Your task to perform on an android device: change your default location settings in chrome Image 0: 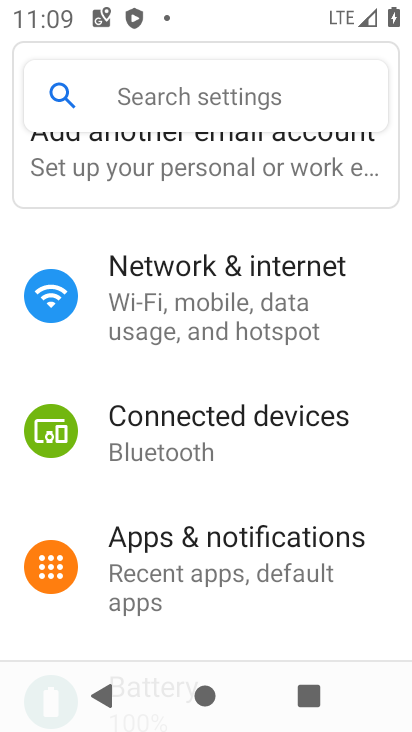
Step 0: press home button
Your task to perform on an android device: change your default location settings in chrome Image 1: 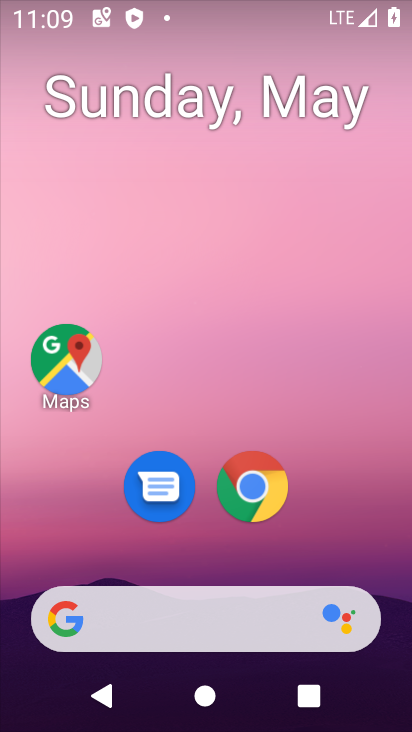
Step 1: drag from (340, 534) to (240, 100)
Your task to perform on an android device: change your default location settings in chrome Image 2: 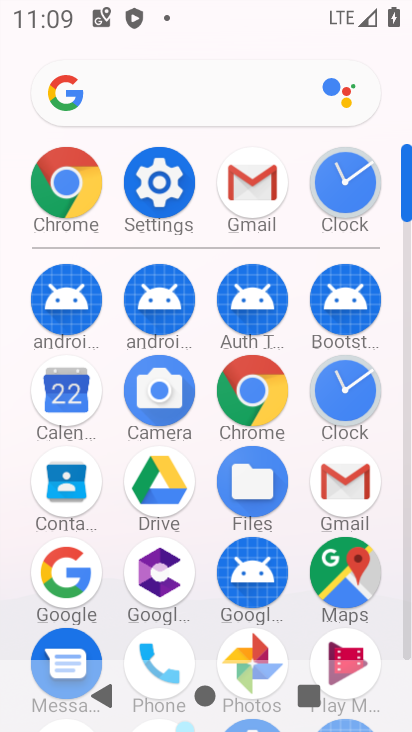
Step 2: click (247, 402)
Your task to perform on an android device: change your default location settings in chrome Image 3: 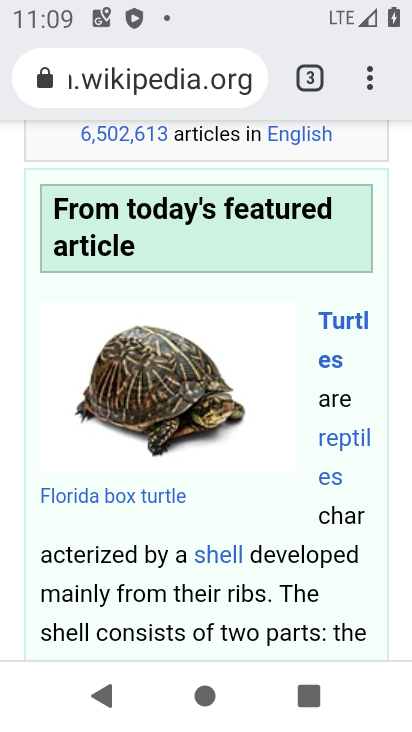
Step 3: click (367, 85)
Your task to perform on an android device: change your default location settings in chrome Image 4: 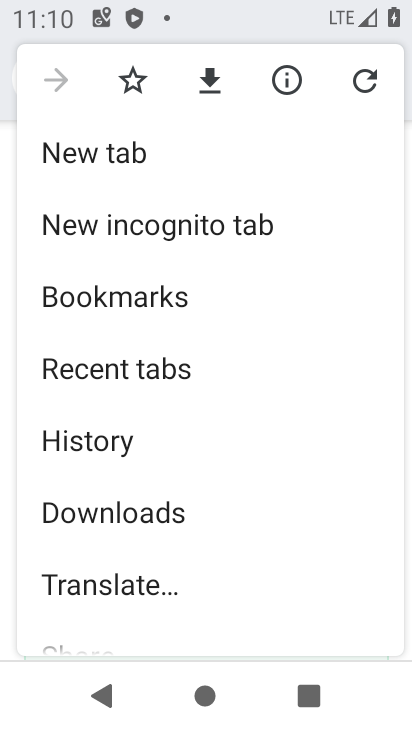
Step 4: drag from (127, 622) to (68, 430)
Your task to perform on an android device: change your default location settings in chrome Image 5: 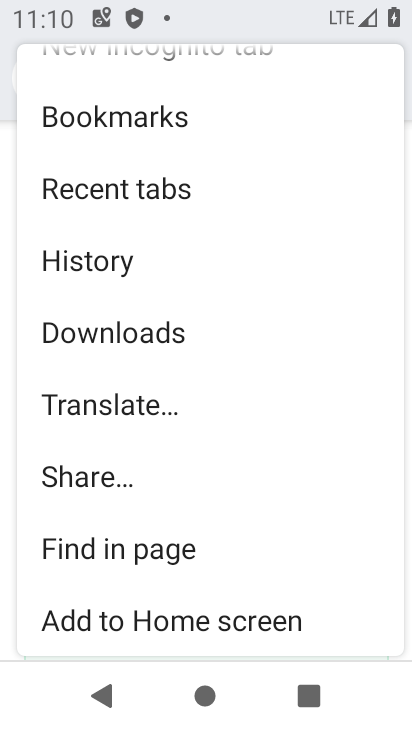
Step 5: drag from (217, 550) to (184, 349)
Your task to perform on an android device: change your default location settings in chrome Image 6: 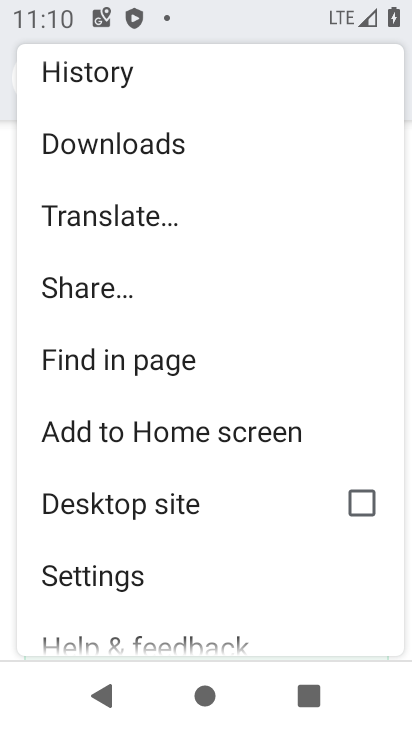
Step 6: click (82, 588)
Your task to perform on an android device: change your default location settings in chrome Image 7: 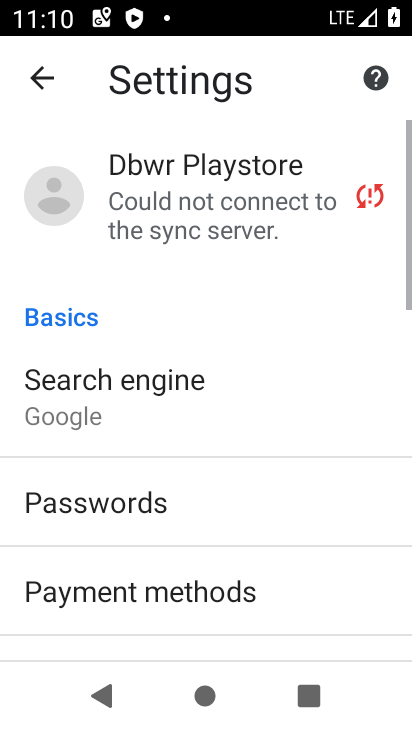
Step 7: drag from (127, 591) to (131, 308)
Your task to perform on an android device: change your default location settings in chrome Image 8: 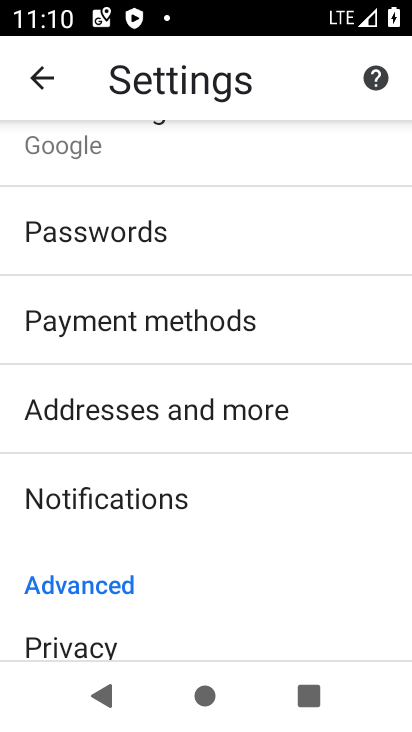
Step 8: drag from (194, 578) to (196, 236)
Your task to perform on an android device: change your default location settings in chrome Image 9: 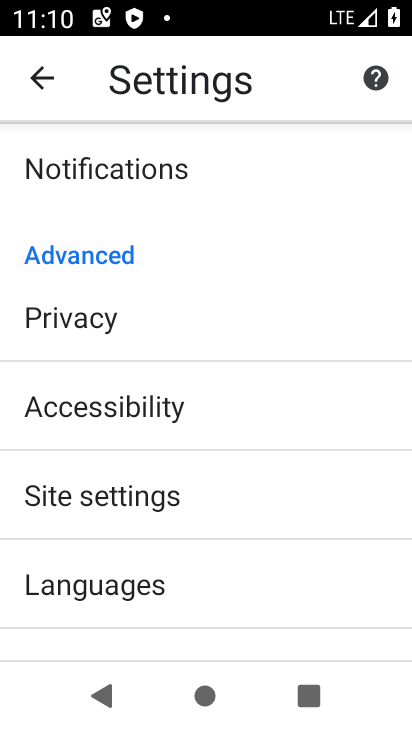
Step 9: drag from (157, 560) to (193, 343)
Your task to perform on an android device: change your default location settings in chrome Image 10: 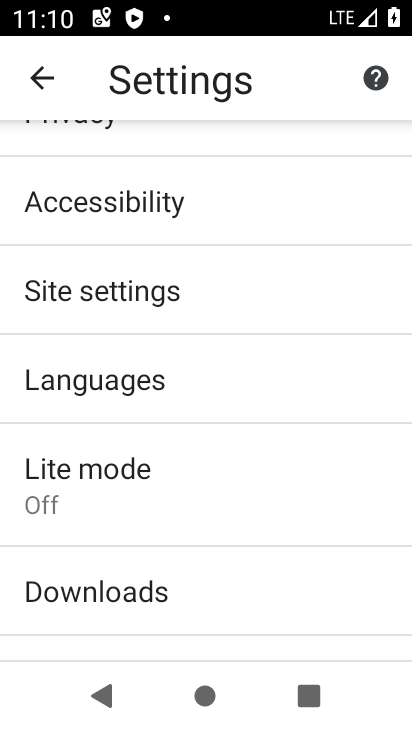
Step 10: click (110, 302)
Your task to perform on an android device: change your default location settings in chrome Image 11: 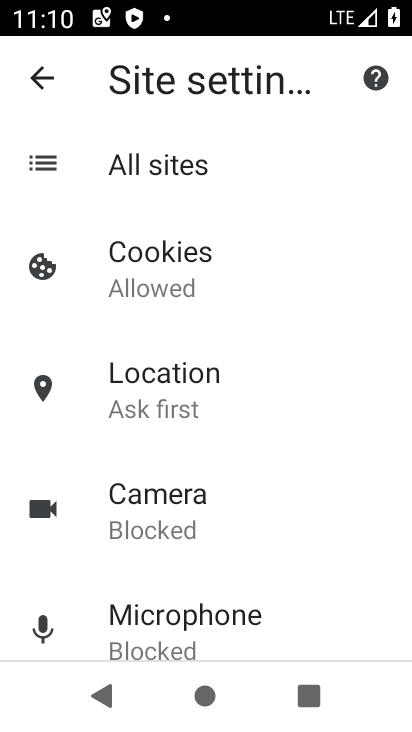
Step 11: click (167, 393)
Your task to perform on an android device: change your default location settings in chrome Image 12: 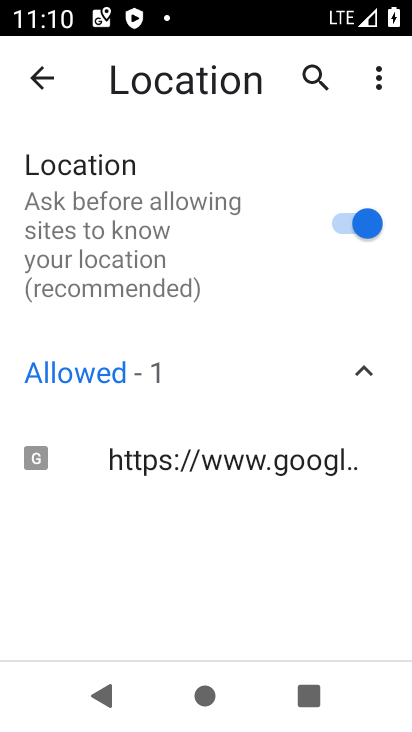
Step 12: click (340, 228)
Your task to perform on an android device: change your default location settings in chrome Image 13: 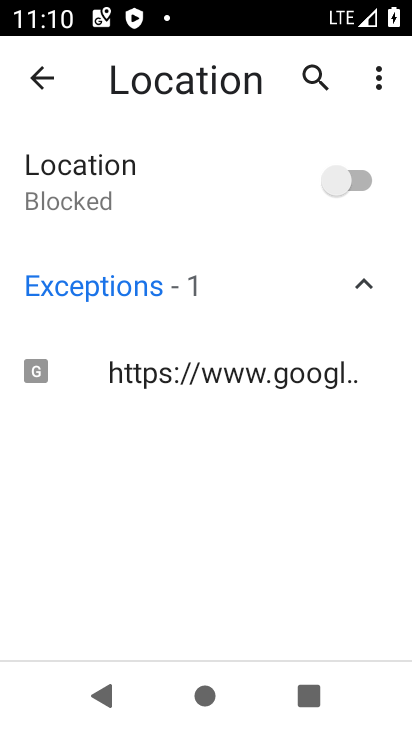
Step 13: task complete